Your task to perform on an android device: Open Maps and search for coffee Image 0: 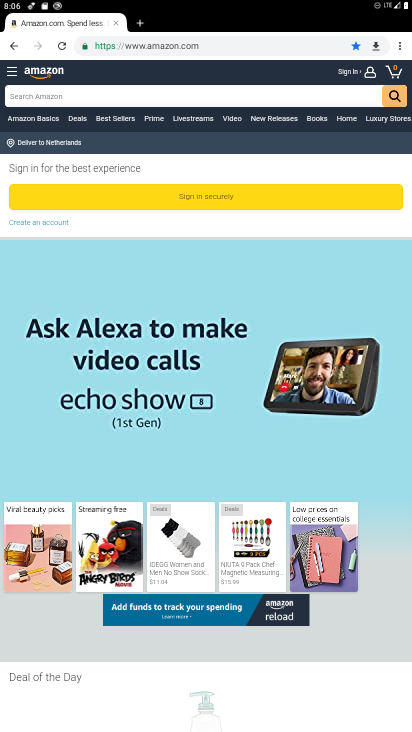
Step 0: drag from (340, 637) to (329, 348)
Your task to perform on an android device: Open Maps and search for coffee Image 1: 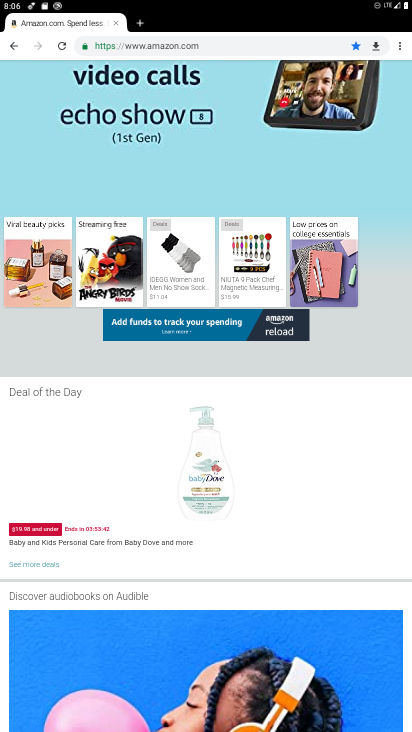
Step 1: press home button
Your task to perform on an android device: Open Maps and search for coffee Image 2: 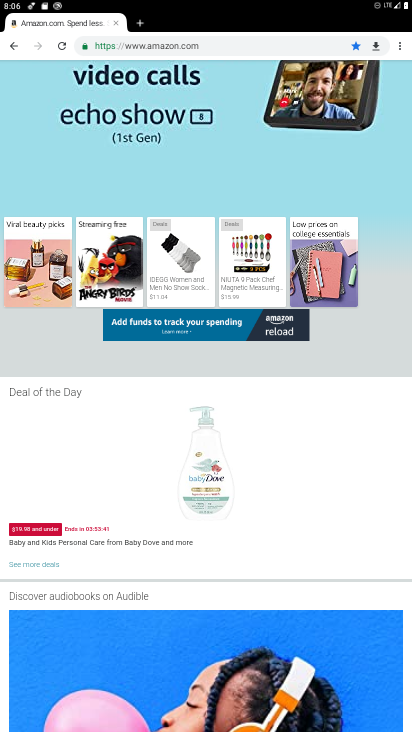
Step 2: drag from (387, 661) to (8, 193)
Your task to perform on an android device: Open Maps and search for coffee Image 3: 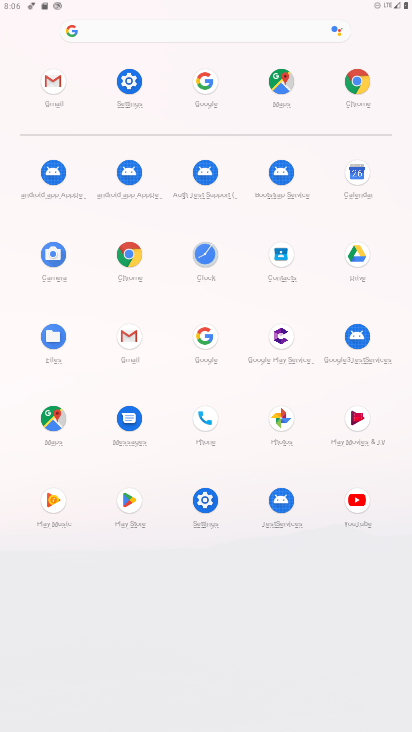
Step 3: click (56, 424)
Your task to perform on an android device: Open Maps and search for coffee Image 4: 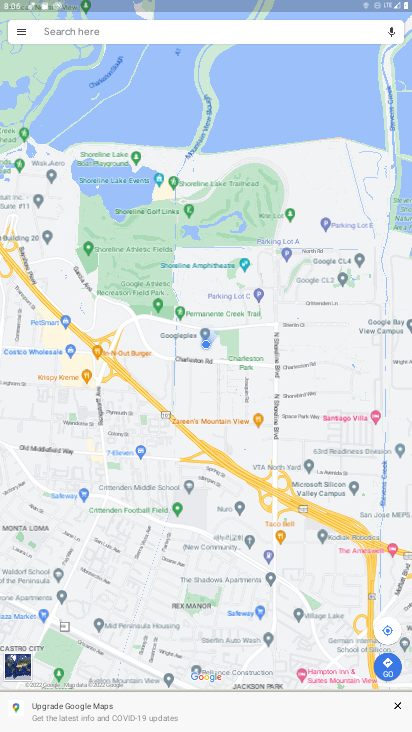
Step 4: click (163, 41)
Your task to perform on an android device: Open Maps and search for coffee Image 5: 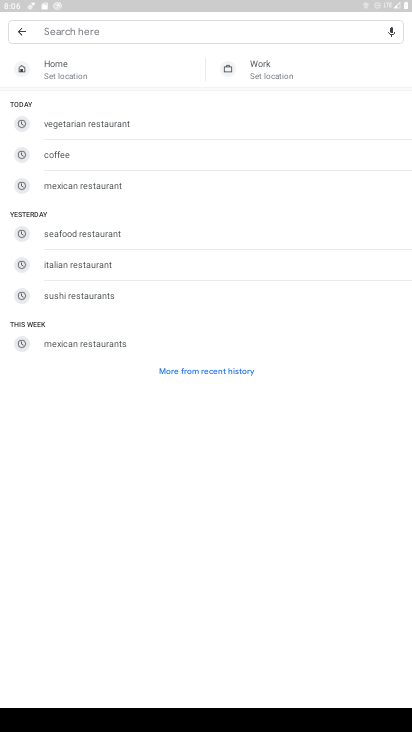
Step 5: click (72, 153)
Your task to perform on an android device: Open Maps and search for coffee Image 6: 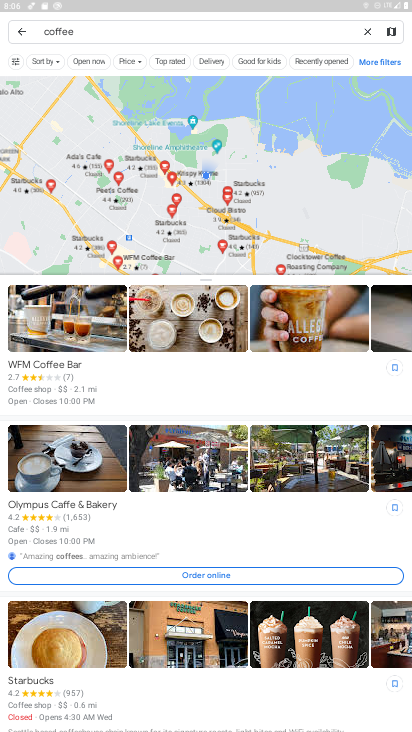
Step 6: task complete